Your task to perform on an android device: Open location settings Image 0: 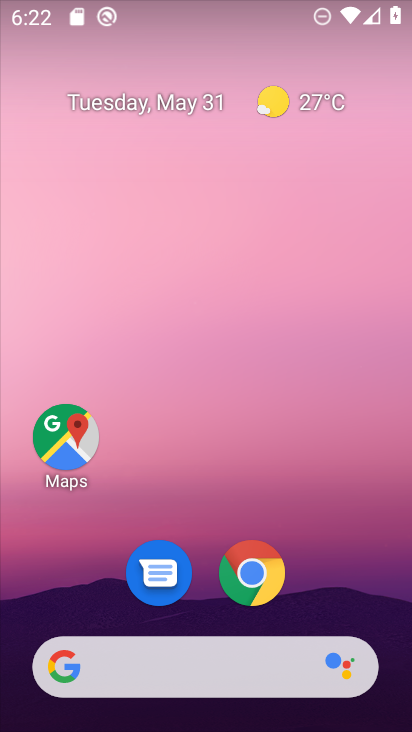
Step 0: drag from (387, 619) to (336, 15)
Your task to perform on an android device: Open location settings Image 1: 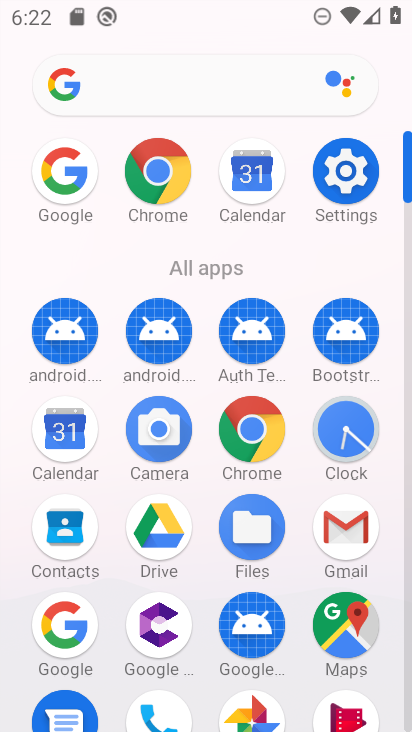
Step 1: click (365, 178)
Your task to perform on an android device: Open location settings Image 2: 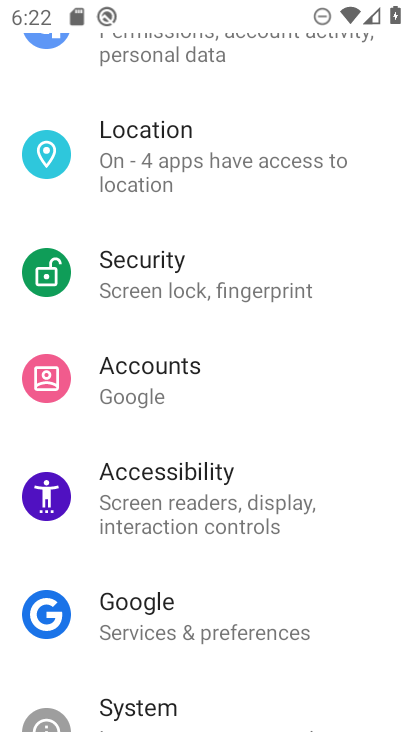
Step 2: click (224, 154)
Your task to perform on an android device: Open location settings Image 3: 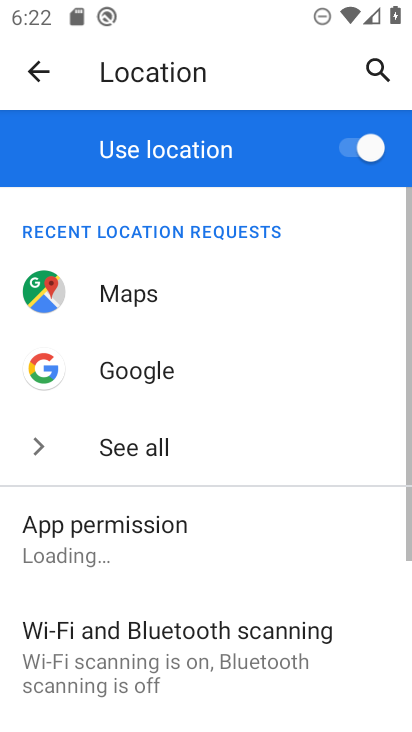
Step 3: task complete